Your task to perform on an android device: delete the emails in spam in the gmail app Image 0: 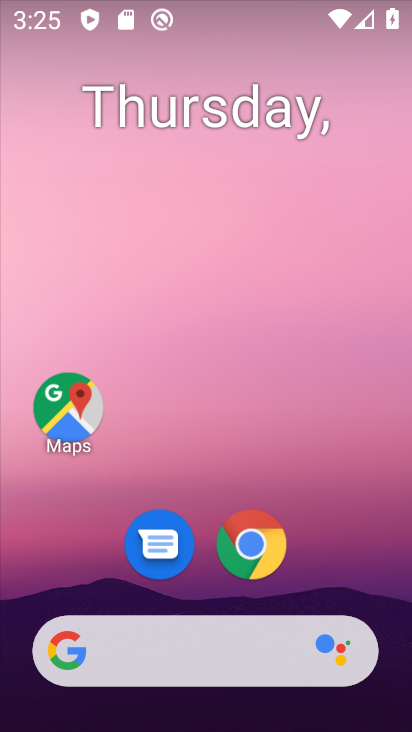
Step 0: drag from (313, 575) to (314, 22)
Your task to perform on an android device: delete the emails in spam in the gmail app Image 1: 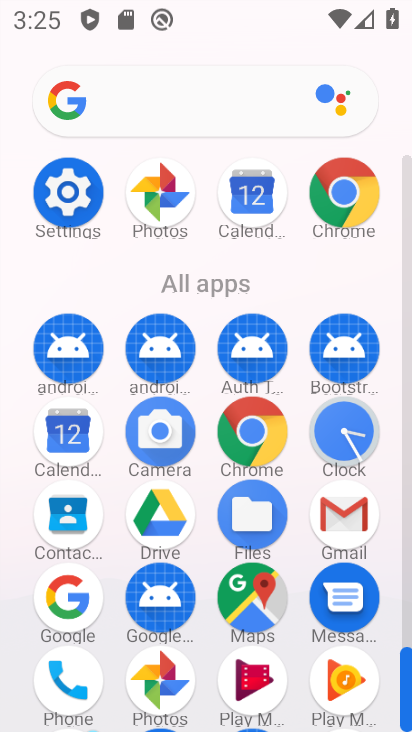
Step 1: click (352, 496)
Your task to perform on an android device: delete the emails in spam in the gmail app Image 2: 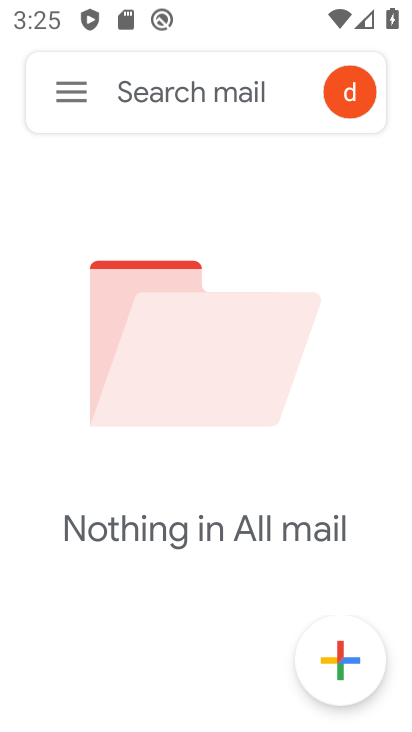
Step 2: click (71, 99)
Your task to perform on an android device: delete the emails in spam in the gmail app Image 3: 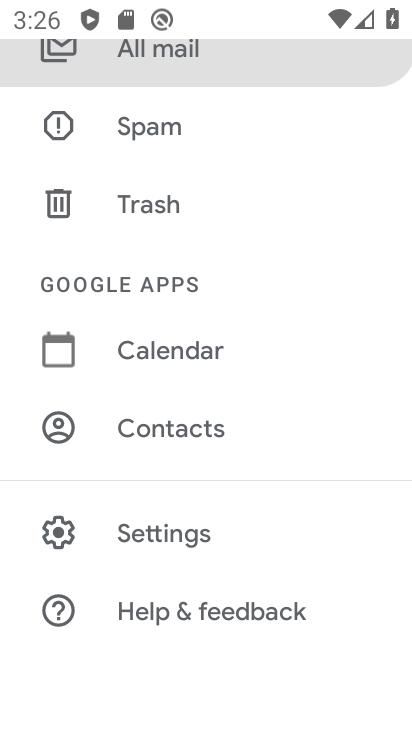
Step 3: click (163, 123)
Your task to perform on an android device: delete the emails in spam in the gmail app Image 4: 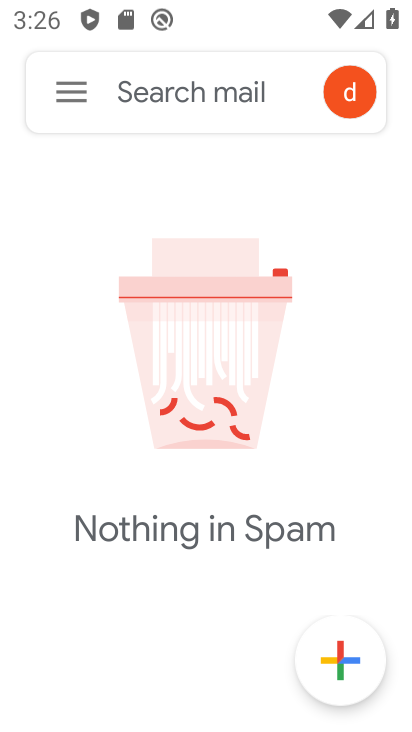
Step 4: task complete